Your task to perform on an android device: Search for sushi restaurants on Maps Image 0: 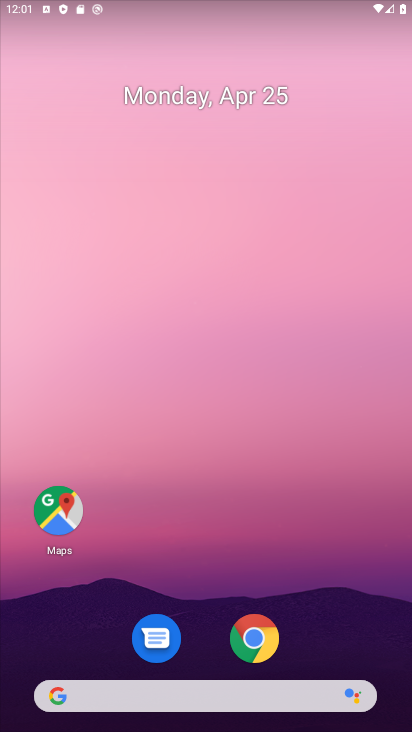
Step 0: drag from (270, 327) to (230, 78)
Your task to perform on an android device: Search for sushi restaurants on Maps Image 1: 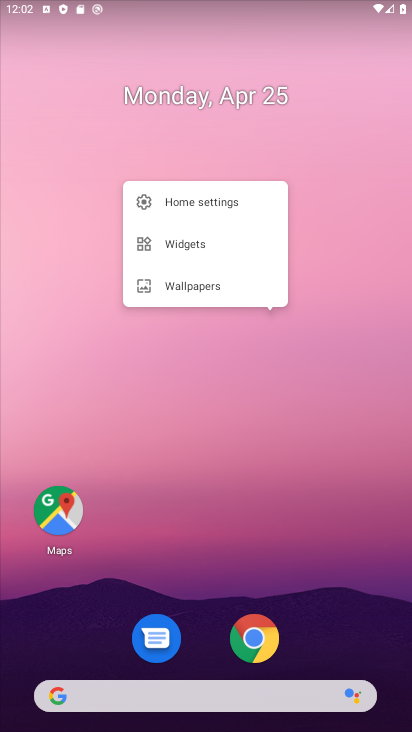
Step 1: drag from (226, 521) to (118, 126)
Your task to perform on an android device: Search for sushi restaurants on Maps Image 2: 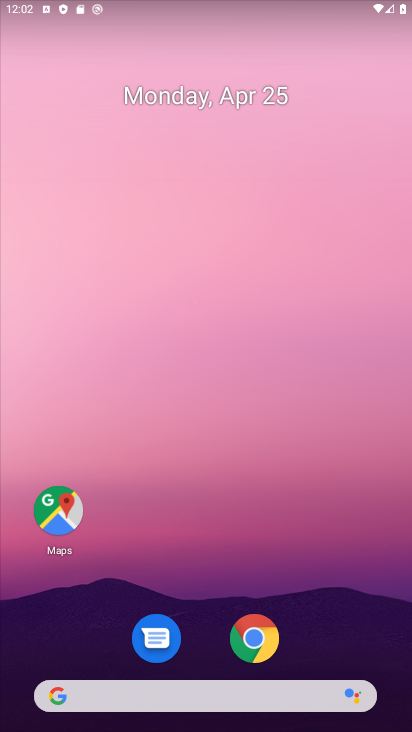
Step 2: drag from (250, 334) to (197, 25)
Your task to perform on an android device: Search for sushi restaurants on Maps Image 3: 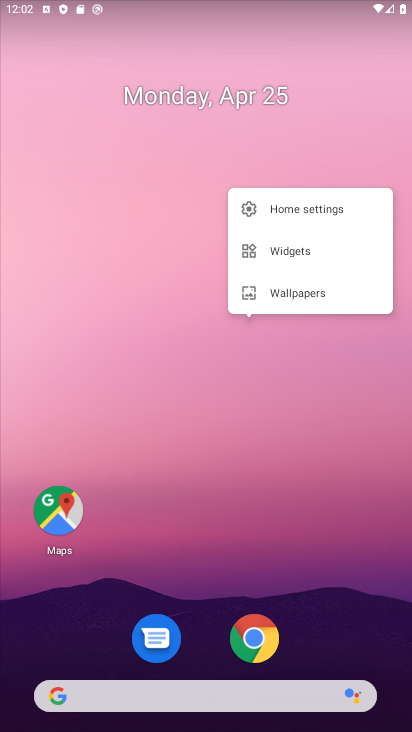
Step 3: drag from (203, 58) to (66, 15)
Your task to perform on an android device: Search for sushi restaurants on Maps Image 4: 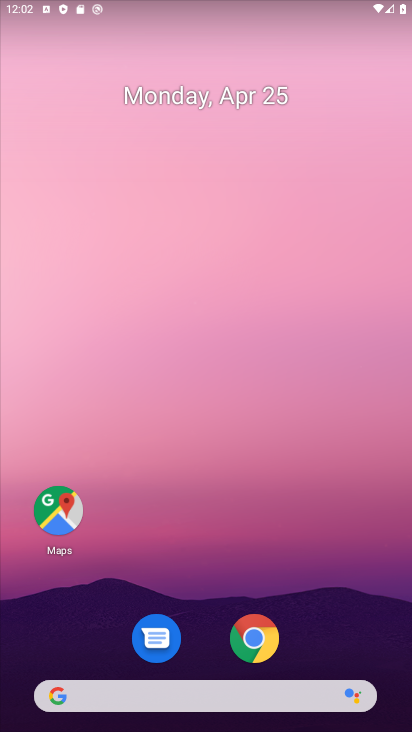
Step 4: drag from (193, 37) to (238, 311)
Your task to perform on an android device: Search for sushi restaurants on Maps Image 5: 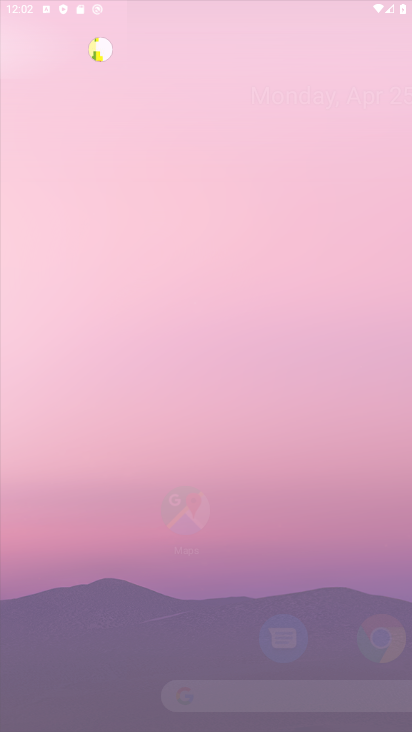
Step 5: drag from (111, 391) to (37, 138)
Your task to perform on an android device: Search for sushi restaurants on Maps Image 6: 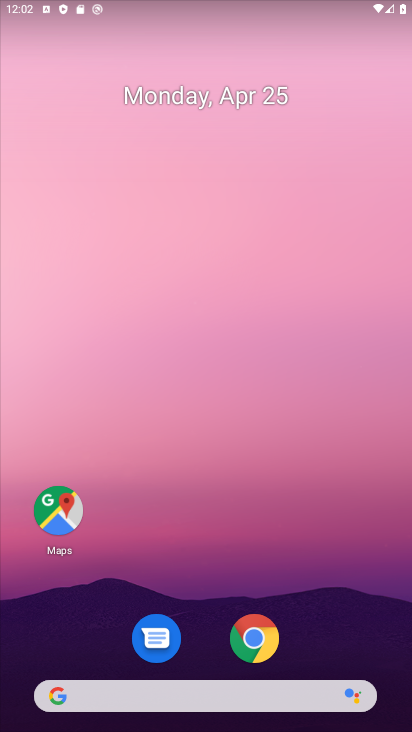
Step 6: drag from (211, 583) to (106, 282)
Your task to perform on an android device: Search for sushi restaurants on Maps Image 7: 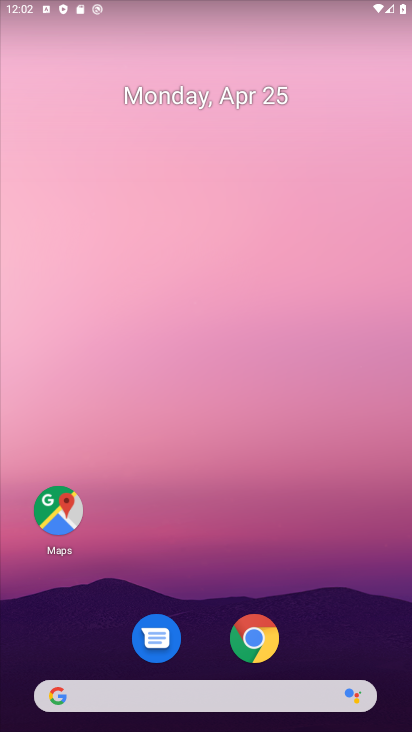
Step 7: click (93, 53)
Your task to perform on an android device: Search for sushi restaurants on Maps Image 8: 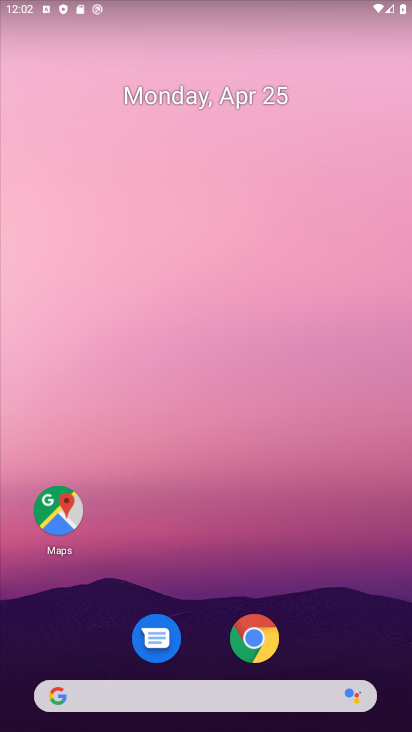
Step 8: drag from (207, 616) to (78, 72)
Your task to perform on an android device: Search for sushi restaurants on Maps Image 9: 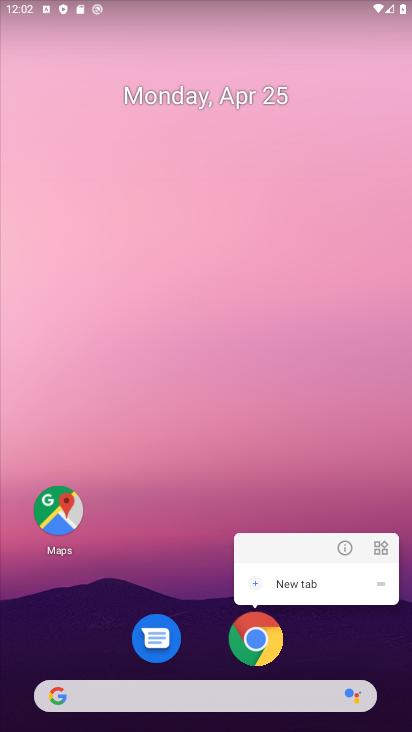
Step 9: drag from (200, 98) to (235, 197)
Your task to perform on an android device: Search for sushi restaurants on Maps Image 10: 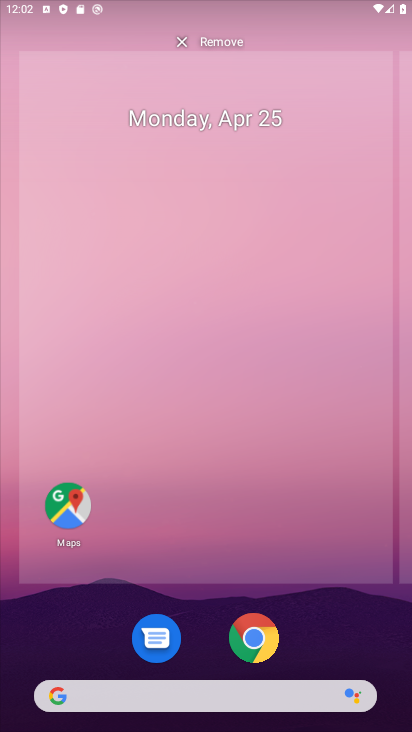
Step 10: drag from (203, 20) to (210, 61)
Your task to perform on an android device: Search for sushi restaurants on Maps Image 11: 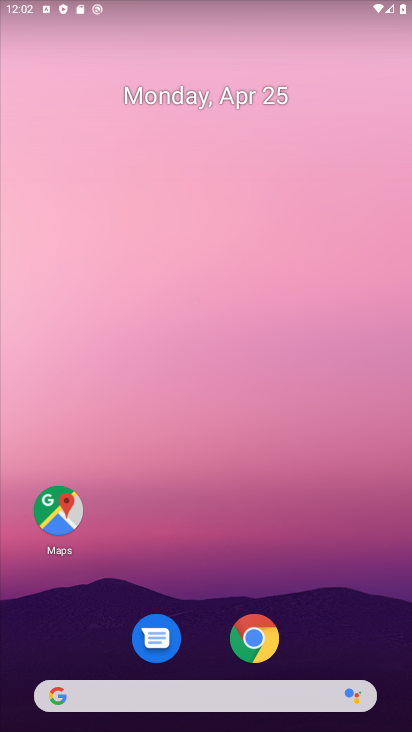
Step 11: drag from (299, 526) to (165, 53)
Your task to perform on an android device: Search for sushi restaurants on Maps Image 12: 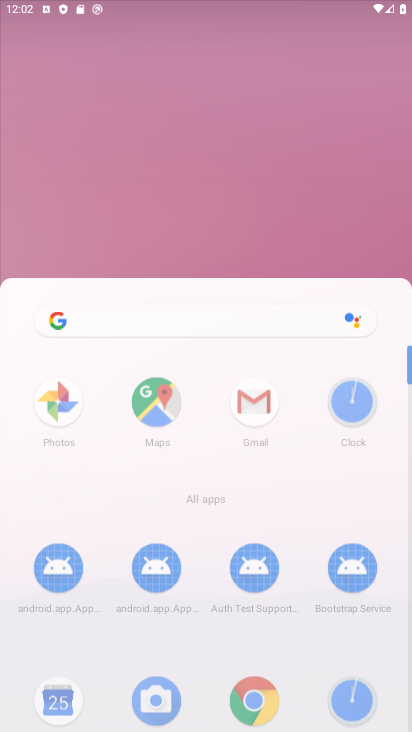
Step 12: drag from (274, 529) to (185, 20)
Your task to perform on an android device: Search for sushi restaurants on Maps Image 13: 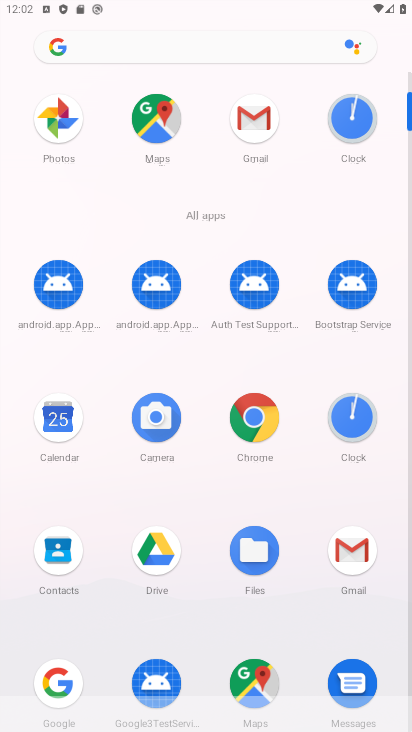
Step 13: click (149, 114)
Your task to perform on an android device: Search for sushi restaurants on Maps Image 14: 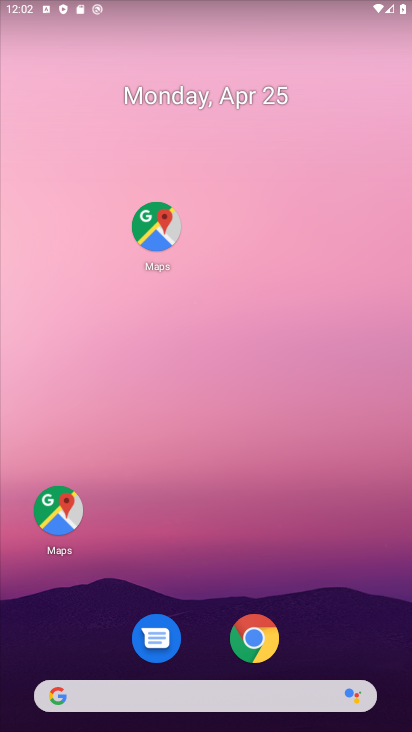
Step 14: drag from (312, 547) to (128, 0)
Your task to perform on an android device: Search for sushi restaurants on Maps Image 15: 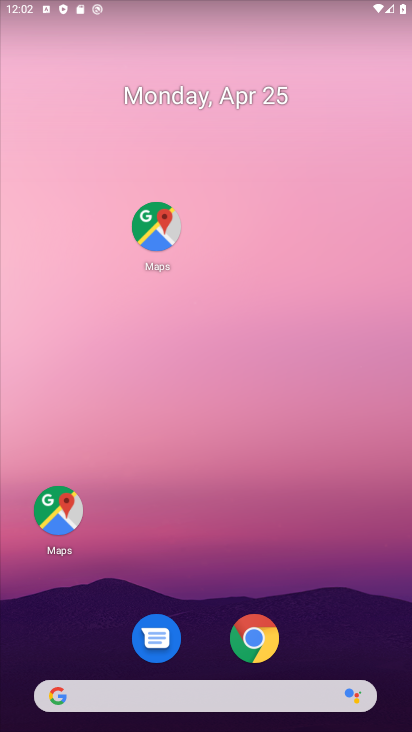
Step 15: drag from (190, 407) to (216, 31)
Your task to perform on an android device: Search for sushi restaurants on Maps Image 16: 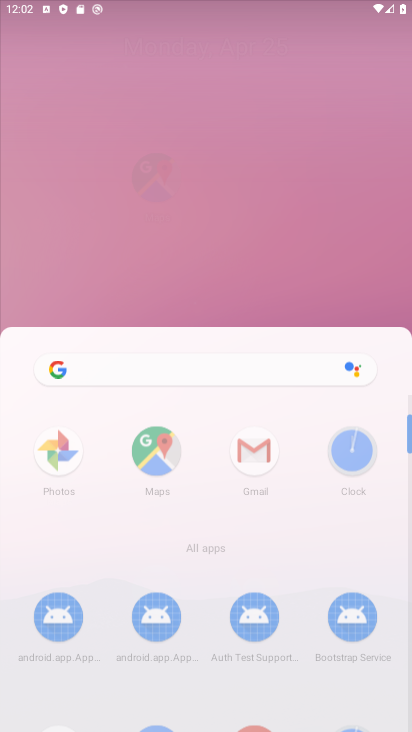
Step 16: drag from (166, 401) to (80, 59)
Your task to perform on an android device: Search for sushi restaurants on Maps Image 17: 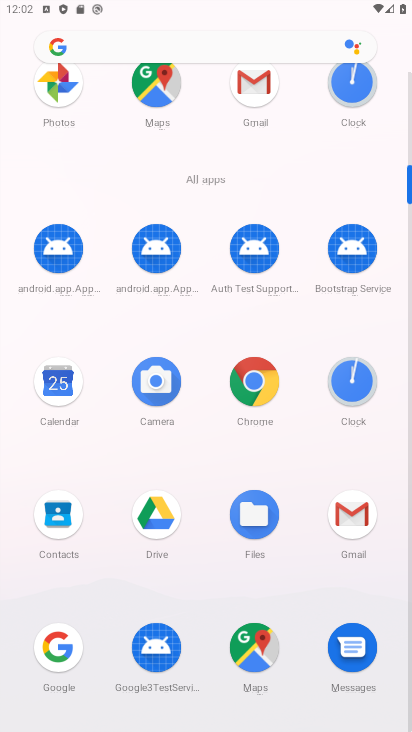
Step 17: click (148, 91)
Your task to perform on an android device: Search for sushi restaurants on Maps Image 18: 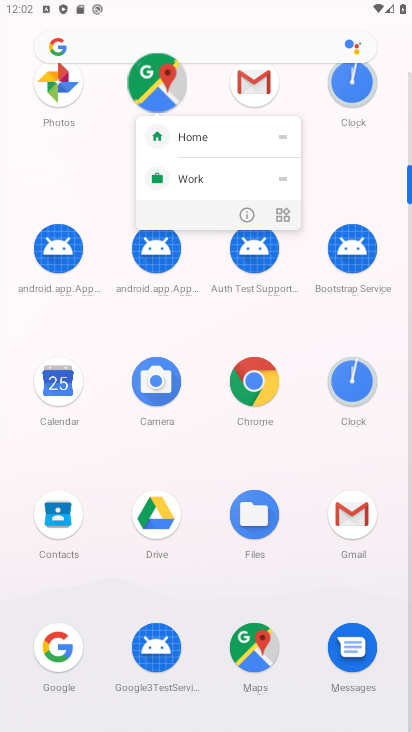
Step 18: click (154, 87)
Your task to perform on an android device: Search for sushi restaurants on Maps Image 19: 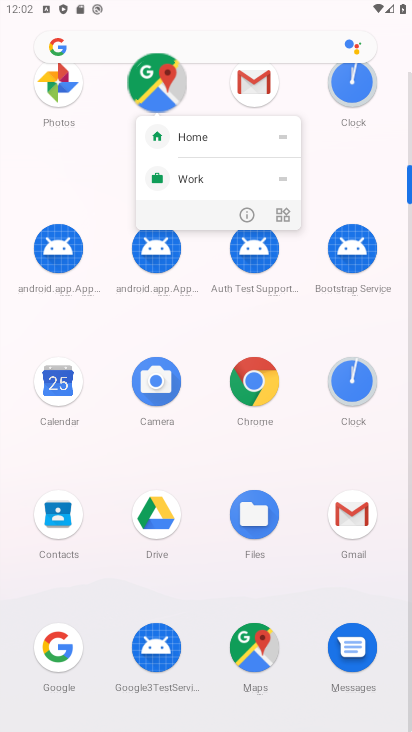
Step 19: click (152, 85)
Your task to perform on an android device: Search for sushi restaurants on Maps Image 20: 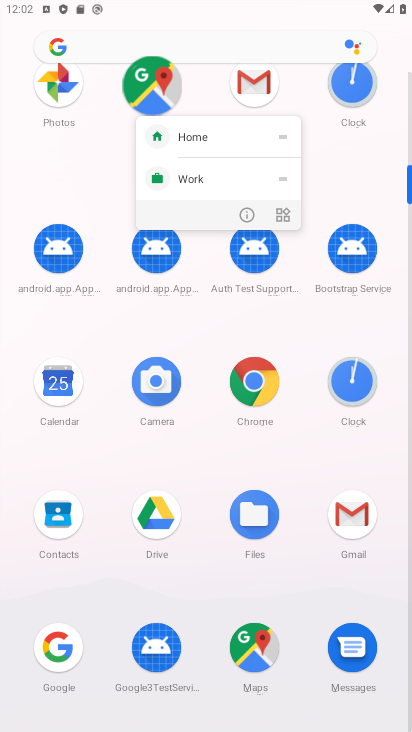
Step 20: click (148, 101)
Your task to perform on an android device: Search for sushi restaurants on Maps Image 21: 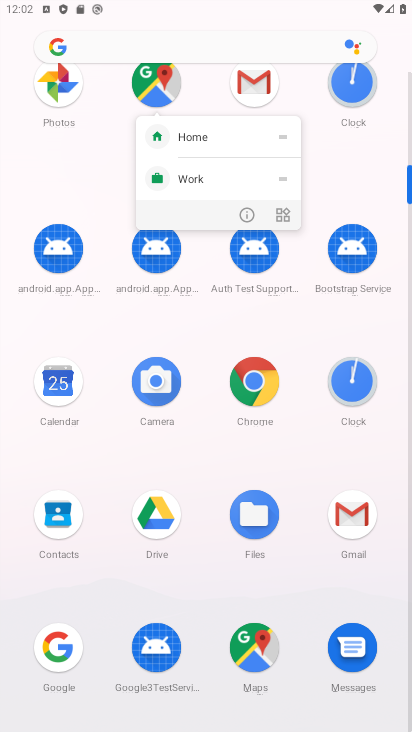
Step 21: click (154, 100)
Your task to perform on an android device: Search for sushi restaurants on Maps Image 22: 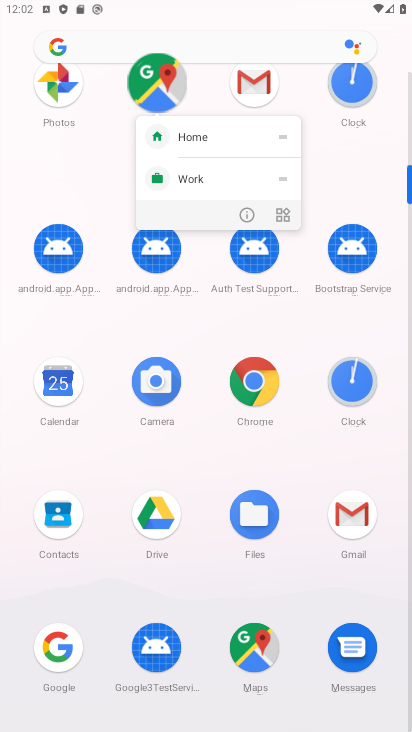
Step 22: click (154, 100)
Your task to perform on an android device: Search for sushi restaurants on Maps Image 23: 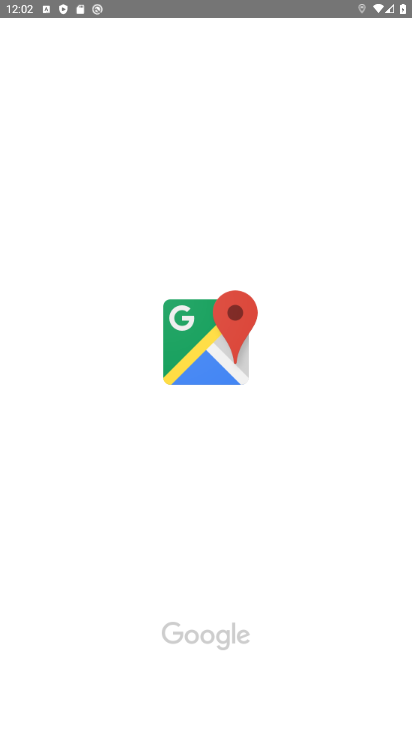
Step 23: click (150, 73)
Your task to perform on an android device: Search for sushi restaurants on Maps Image 24: 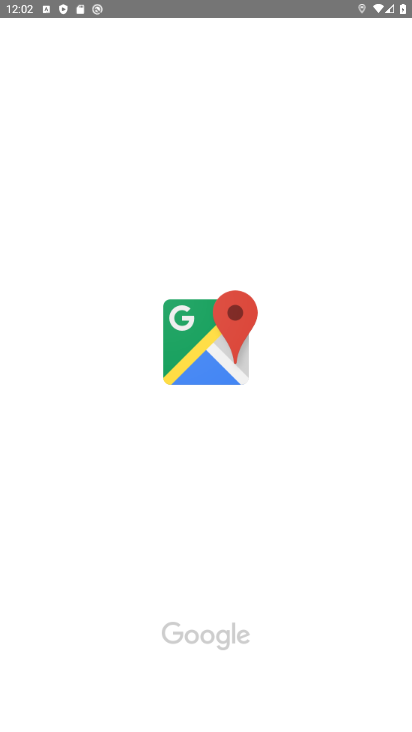
Step 24: click (150, 73)
Your task to perform on an android device: Search for sushi restaurants on Maps Image 25: 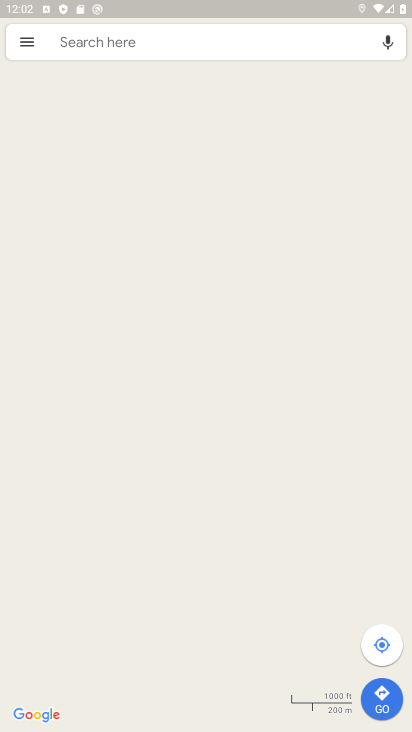
Step 25: click (68, 34)
Your task to perform on an android device: Search for sushi restaurants on Maps Image 26: 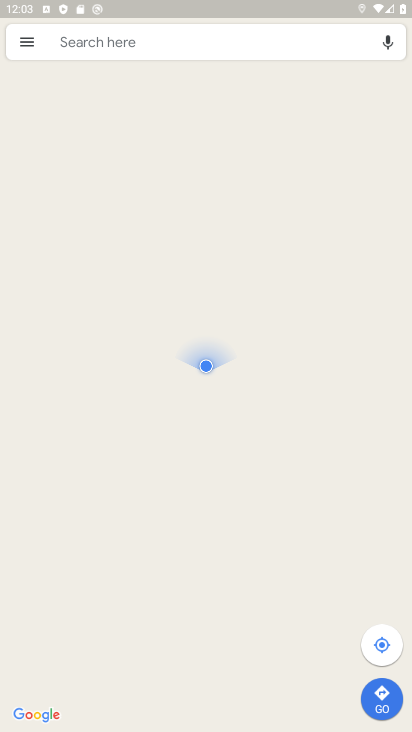
Step 26: click (69, 35)
Your task to perform on an android device: Search for sushi restaurants on Maps Image 27: 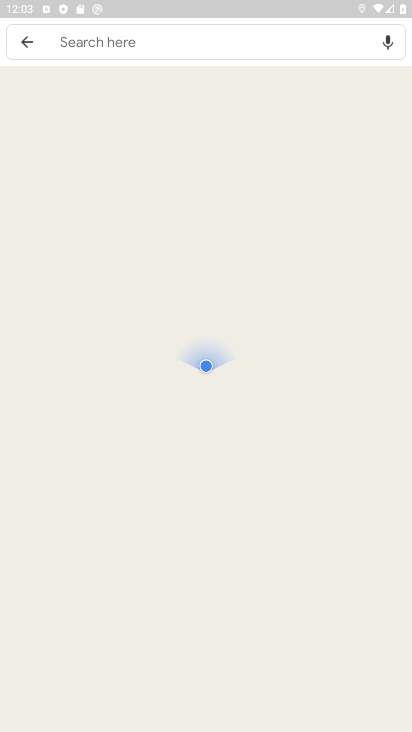
Step 27: click (70, 36)
Your task to perform on an android device: Search for sushi restaurants on Maps Image 28: 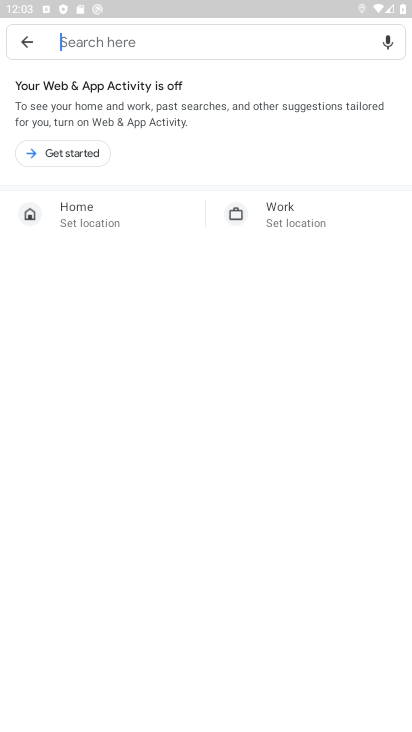
Step 28: click (70, 36)
Your task to perform on an android device: Search for sushi restaurants on Maps Image 29: 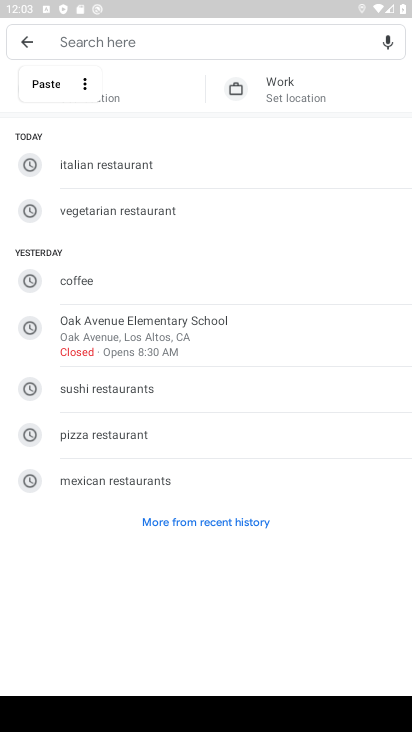
Step 29: type "sushi restaurants"
Your task to perform on an android device: Search for sushi restaurants on Maps Image 30: 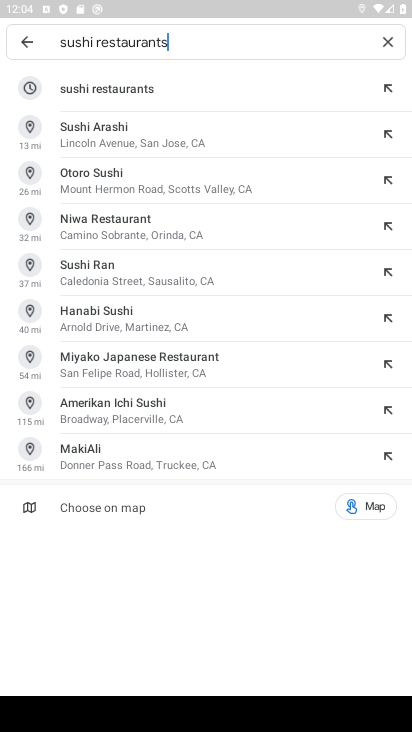
Step 30: click (100, 93)
Your task to perform on an android device: Search for sushi restaurants on Maps Image 31: 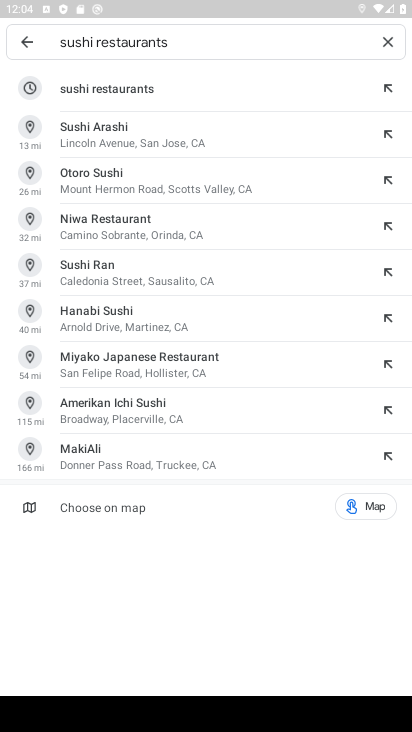
Step 31: click (100, 92)
Your task to perform on an android device: Search for sushi restaurants on Maps Image 32: 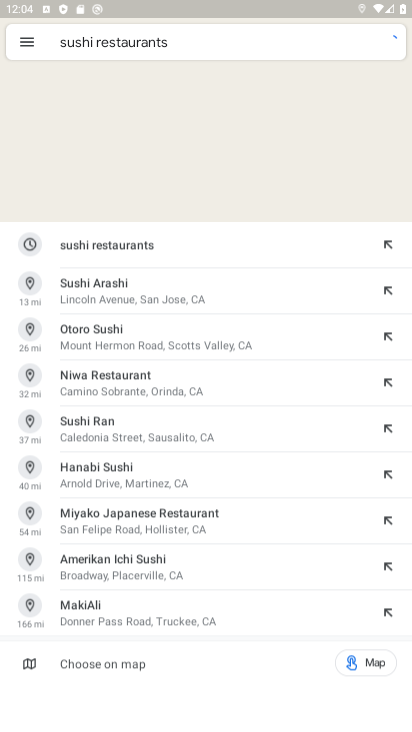
Step 32: click (100, 92)
Your task to perform on an android device: Search for sushi restaurants on Maps Image 33: 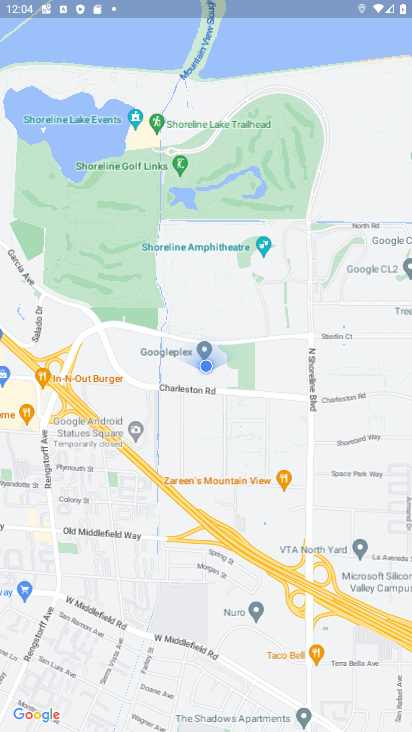
Step 33: task complete